Your task to perform on an android device: Open Youtube and go to the subscriptions tab Image 0: 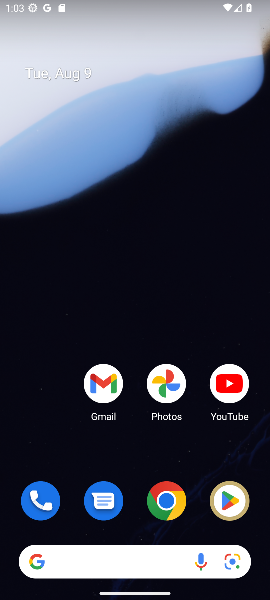
Step 0: click (226, 381)
Your task to perform on an android device: Open Youtube and go to the subscriptions tab Image 1: 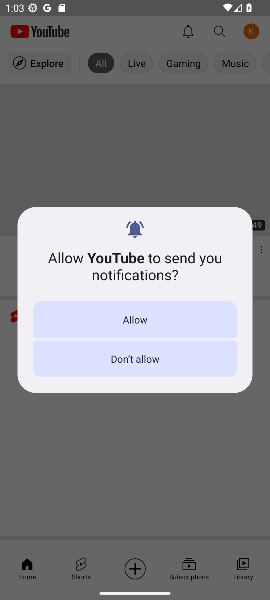
Step 1: click (145, 311)
Your task to perform on an android device: Open Youtube and go to the subscriptions tab Image 2: 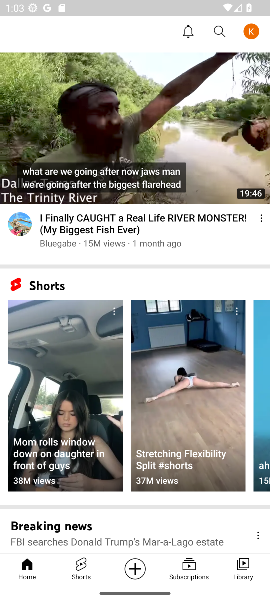
Step 2: click (180, 568)
Your task to perform on an android device: Open Youtube and go to the subscriptions tab Image 3: 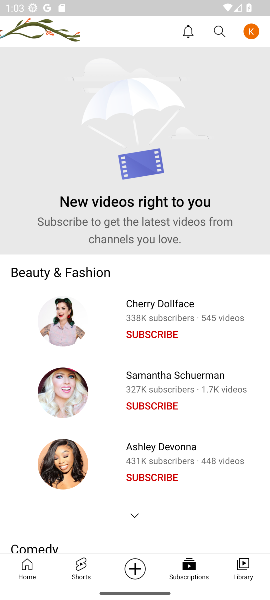
Step 3: task complete